Your task to perform on an android device: add a contact in the contacts app Image 0: 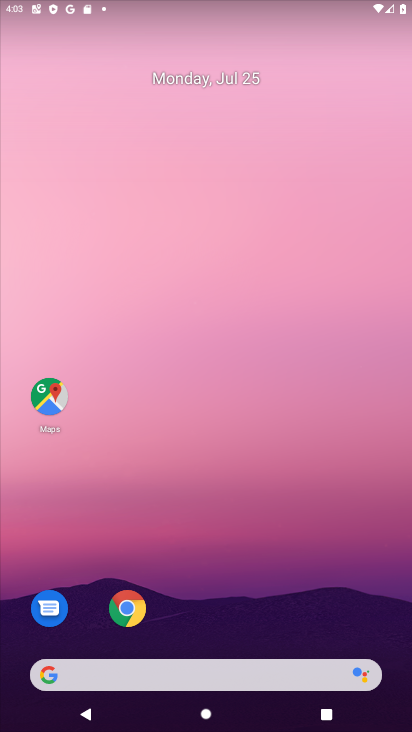
Step 0: drag from (207, 635) to (178, 35)
Your task to perform on an android device: add a contact in the contacts app Image 1: 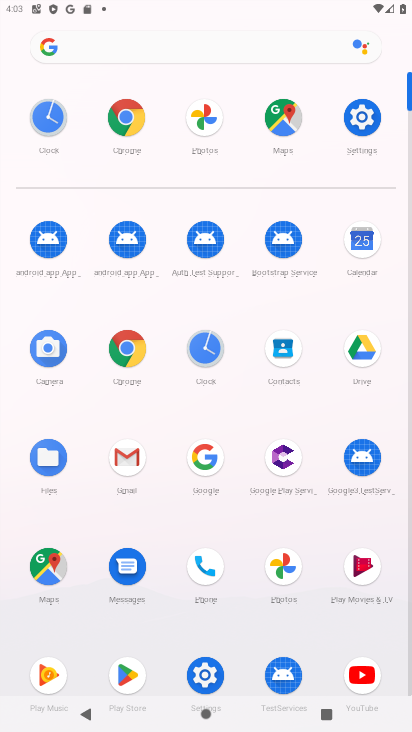
Step 1: click (284, 343)
Your task to perform on an android device: add a contact in the contacts app Image 2: 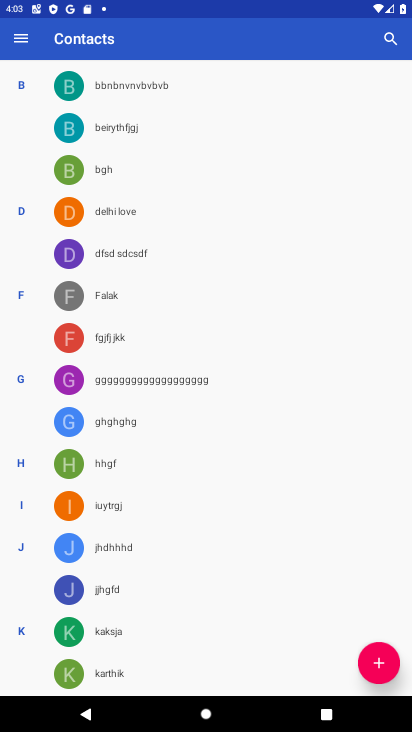
Step 2: click (376, 660)
Your task to perform on an android device: add a contact in the contacts app Image 3: 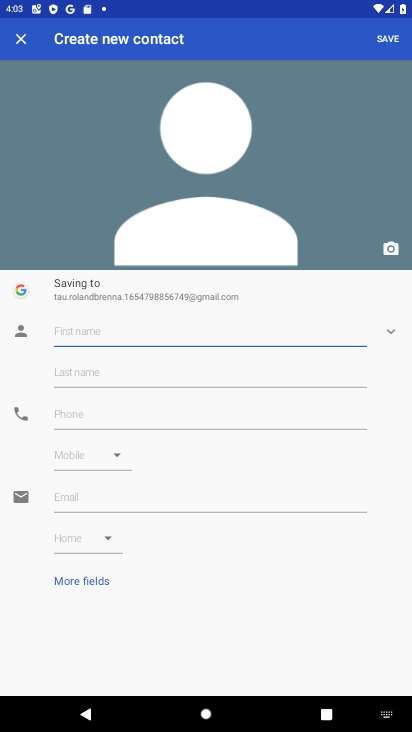
Step 3: type "jfydsyt"
Your task to perform on an android device: add a contact in the contacts app Image 4: 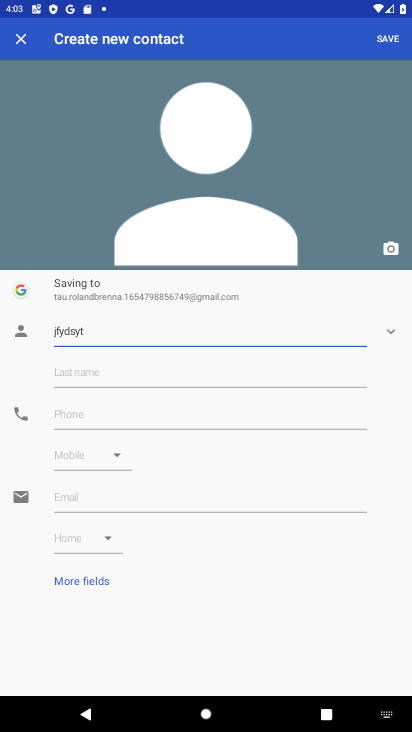
Step 4: click (390, 37)
Your task to perform on an android device: add a contact in the contacts app Image 5: 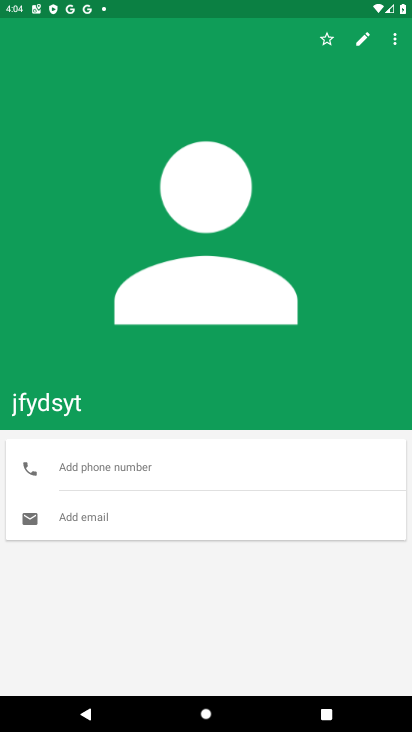
Step 5: press home button
Your task to perform on an android device: add a contact in the contacts app Image 6: 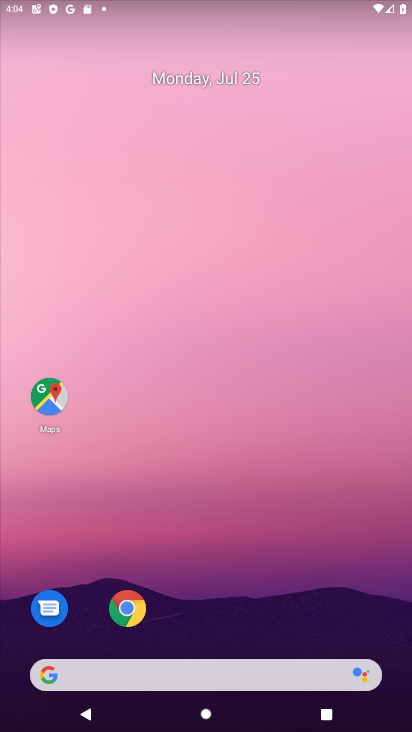
Step 6: drag from (215, 545) to (282, 0)
Your task to perform on an android device: add a contact in the contacts app Image 7: 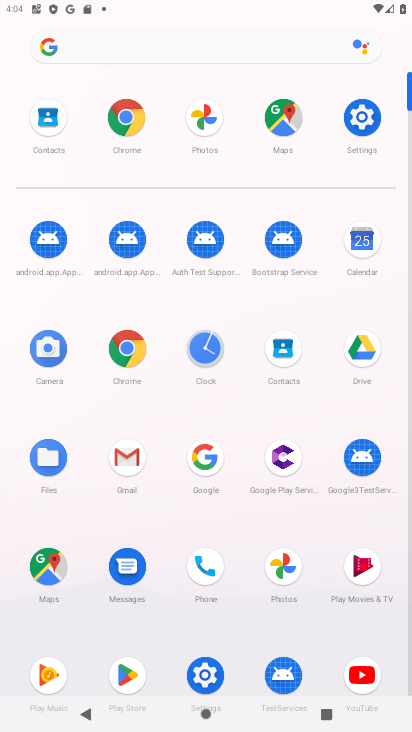
Step 7: click (280, 339)
Your task to perform on an android device: add a contact in the contacts app Image 8: 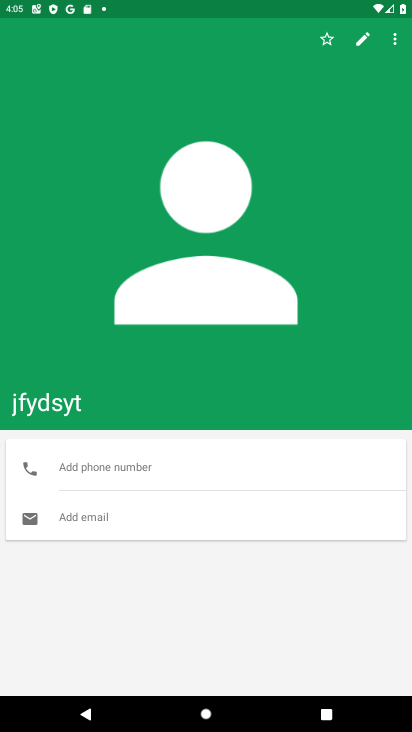
Step 8: task complete